Your task to perform on an android device: Open the calendar and show me this week's events? Image 0: 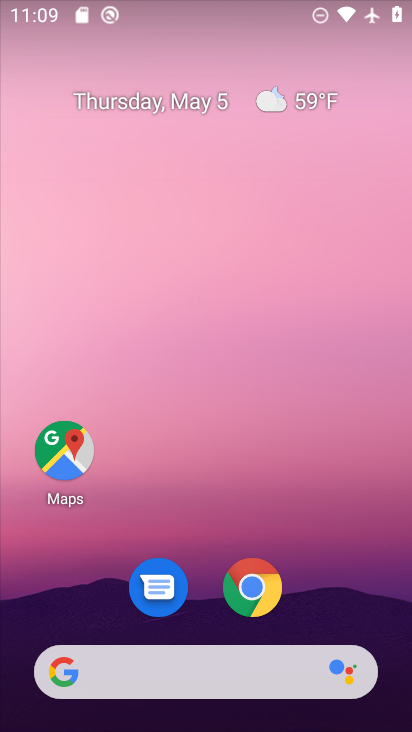
Step 0: drag from (359, 534) to (251, 24)
Your task to perform on an android device: Open the calendar and show me this week's events? Image 1: 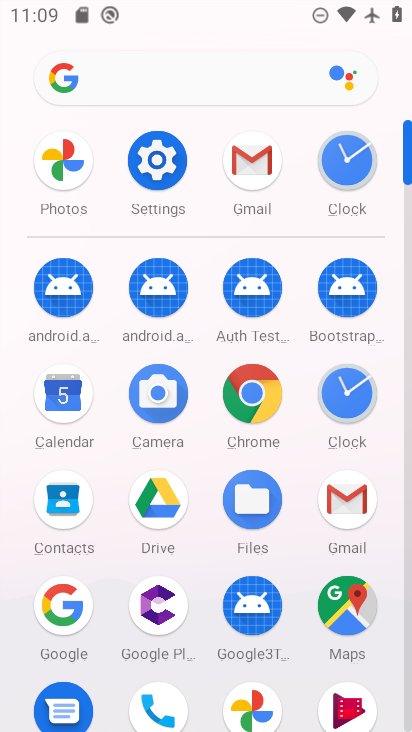
Step 1: click (59, 391)
Your task to perform on an android device: Open the calendar and show me this week's events? Image 2: 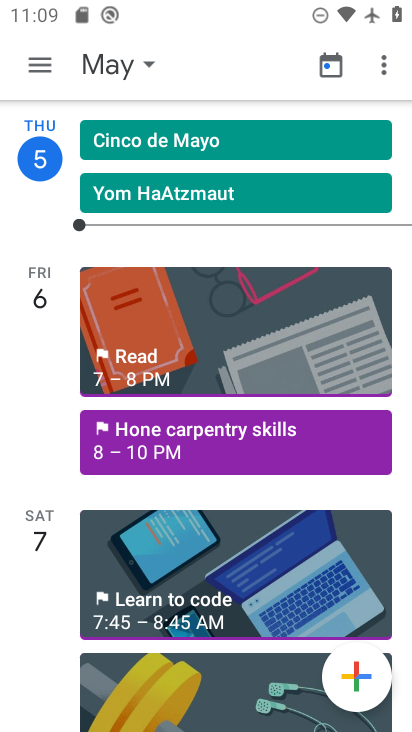
Step 2: click (16, 71)
Your task to perform on an android device: Open the calendar and show me this week's events? Image 3: 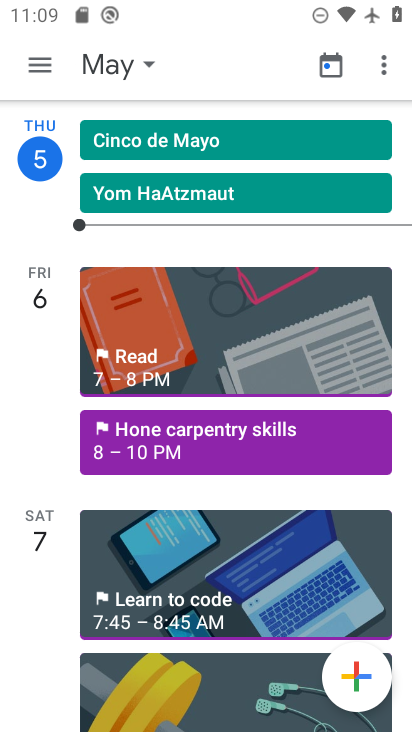
Step 3: click (33, 66)
Your task to perform on an android device: Open the calendar and show me this week's events? Image 4: 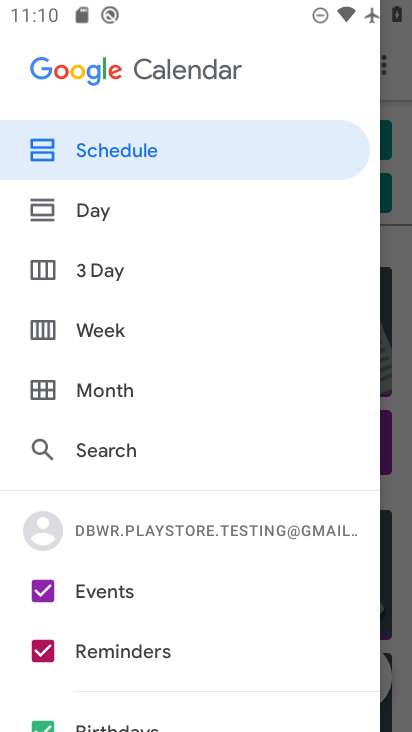
Step 4: click (124, 323)
Your task to perform on an android device: Open the calendar and show me this week's events? Image 5: 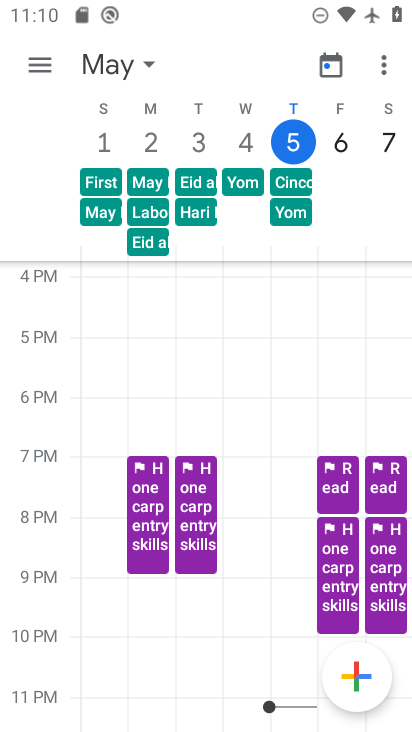
Step 5: task complete